Your task to perform on an android device: delete location history Image 0: 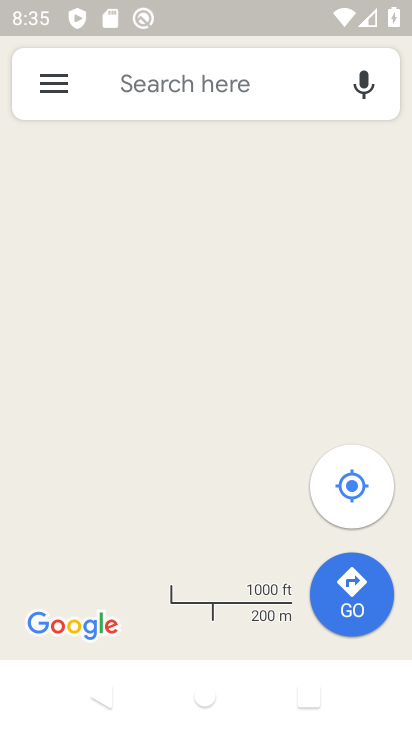
Step 0: press home button
Your task to perform on an android device: delete location history Image 1: 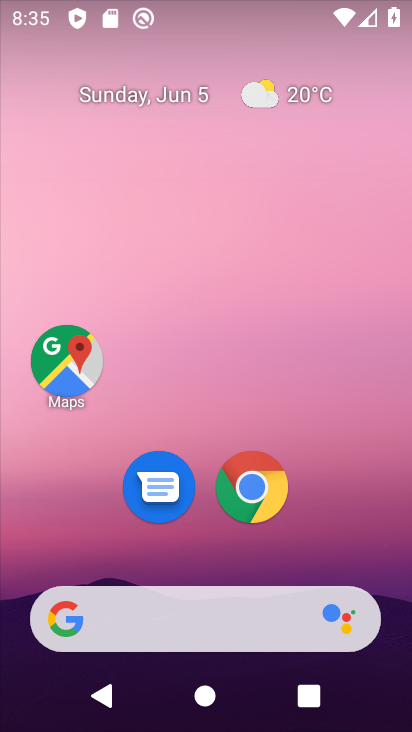
Step 1: drag from (274, 586) to (260, 363)
Your task to perform on an android device: delete location history Image 2: 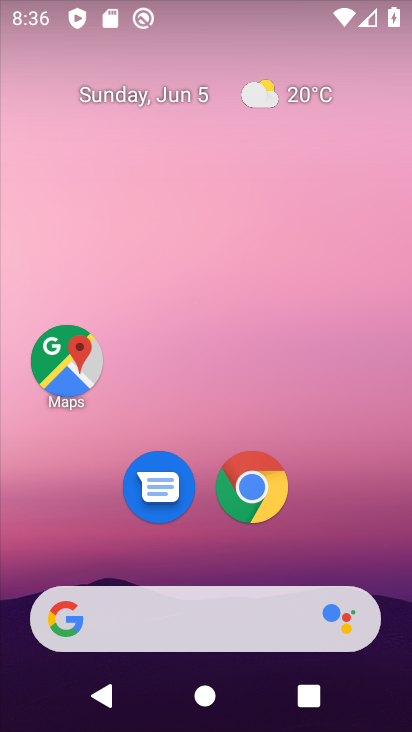
Step 2: drag from (191, 628) to (114, 182)
Your task to perform on an android device: delete location history Image 3: 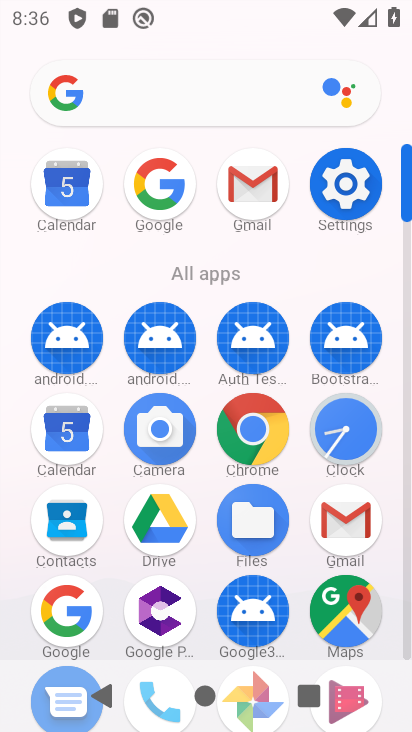
Step 3: click (339, 203)
Your task to perform on an android device: delete location history Image 4: 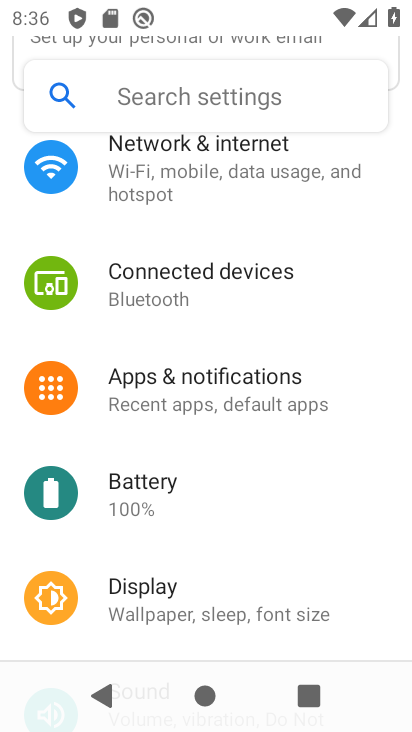
Step 4: drag from (183, 526) to (141, 123)
Your task to perform on an android device: delete location history Image 5: 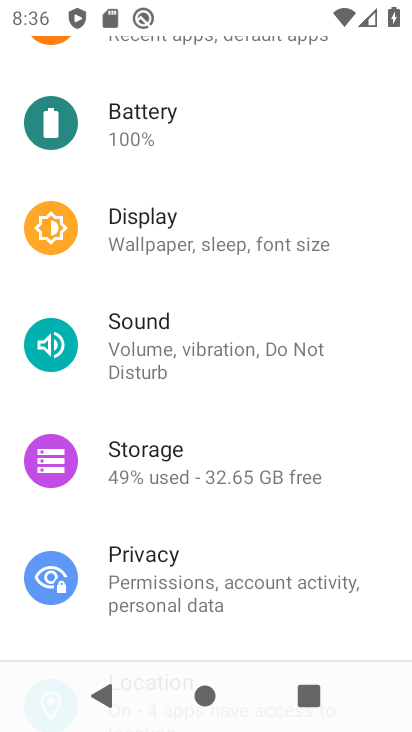
Step 5: drag from (224, 509) to (193, 127)
Your task to perform on an android device: delete location history Image 6: 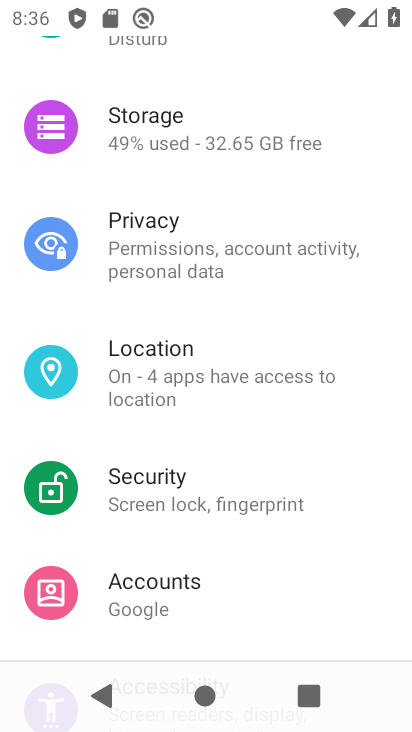
Step 6: click (157, 360)
Your task to perform on an android device: delete location history Image 7: 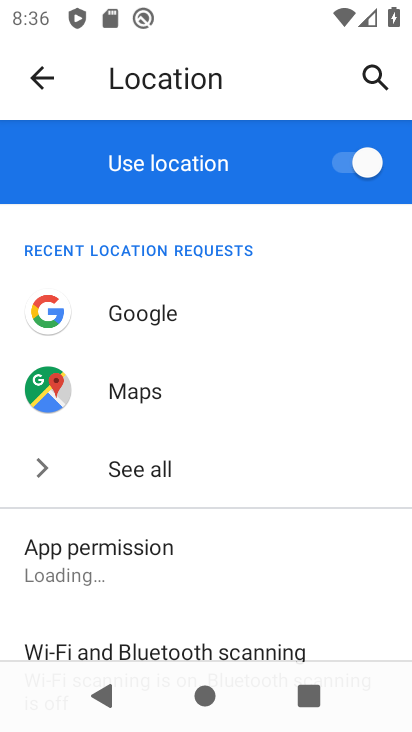
Step 7: drag from (198, 564) to (276, 188)
Your task to perform on an android device: delete location history Image 8: 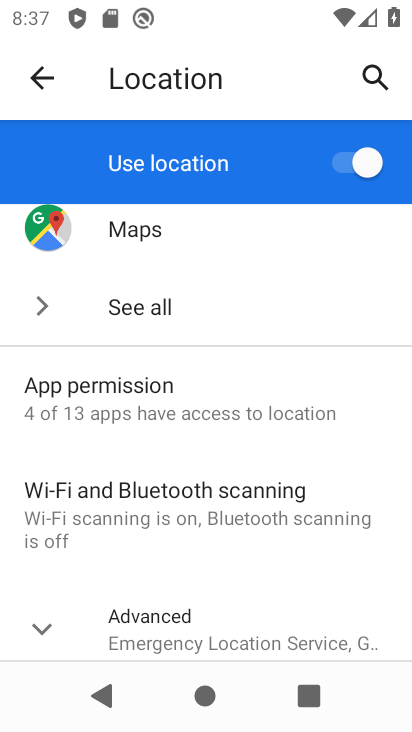
Step 8: click (121, 610)
Your task to perform on an android device: delete location history Image 9: 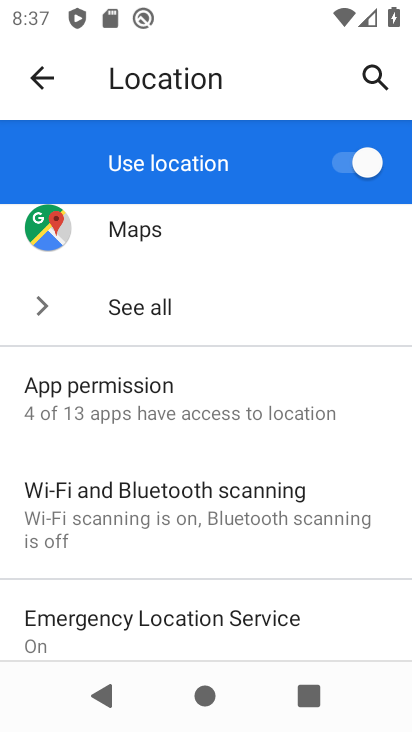
Step 9: drag from (218, 541) to (235, 317)
Your task to perform on an android device: delete location history Image 10: 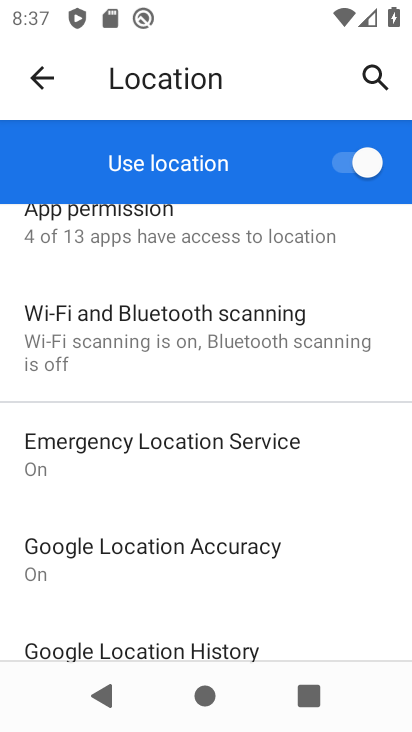
Step 10: click (185, 632)
Your task to perform on an android device: delete location history Image 11: 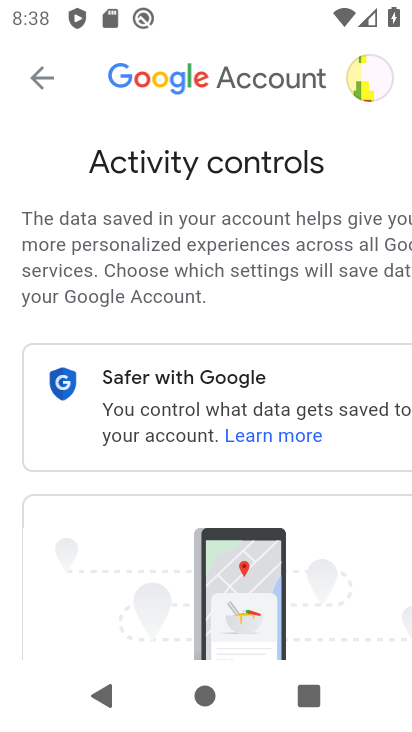
Step 11: drag from (199, 464) to (161, 288)
Your task to perform on an android device: delete location history Image 12: 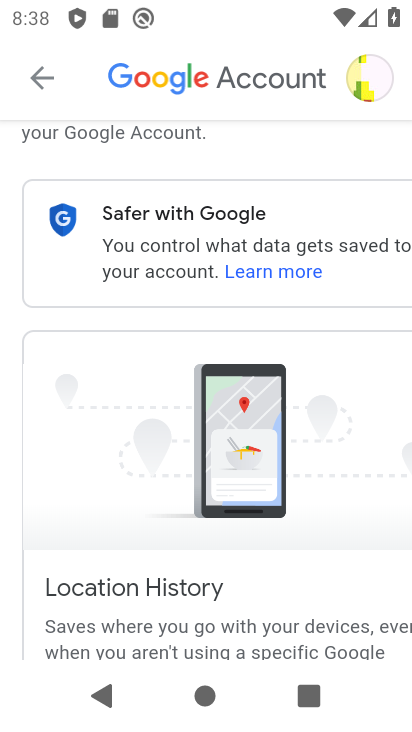
Step 12: drag from (189, 480) to (86, 287)
Your task to perform on an android device: delete location history Image 13: 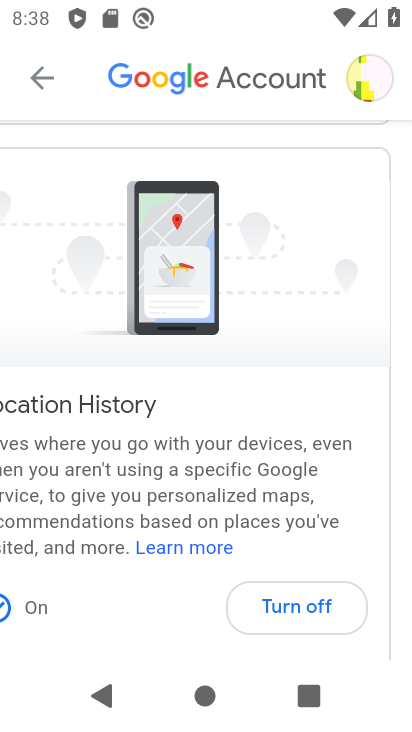
Step 13: drag from (161, 535) to (153, 452)
Your task to perform on an android device: delete location history Image 14: 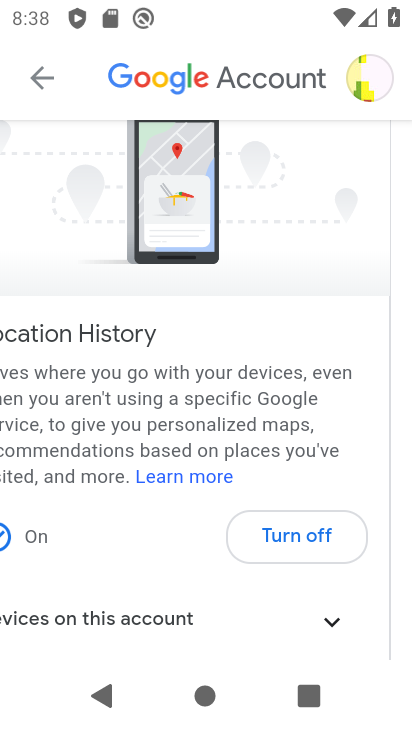
Step 14: drag from (187, 514) to (240, 426)
Your task to perform on an android device: delete location history Image 15: 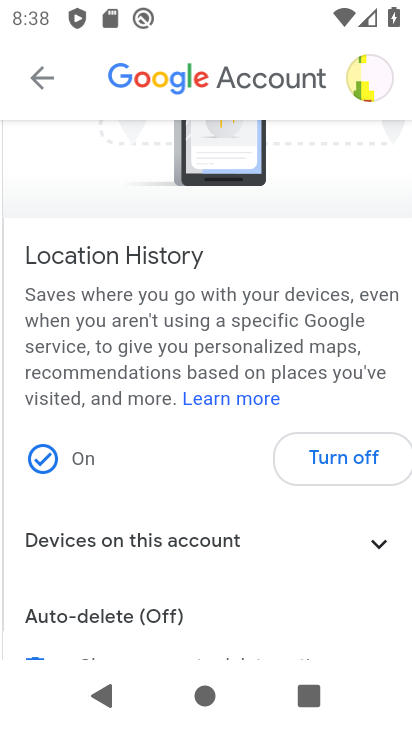
Step 15: click (219, 521)
Your task to perform on an android device: delete location history Image 16: 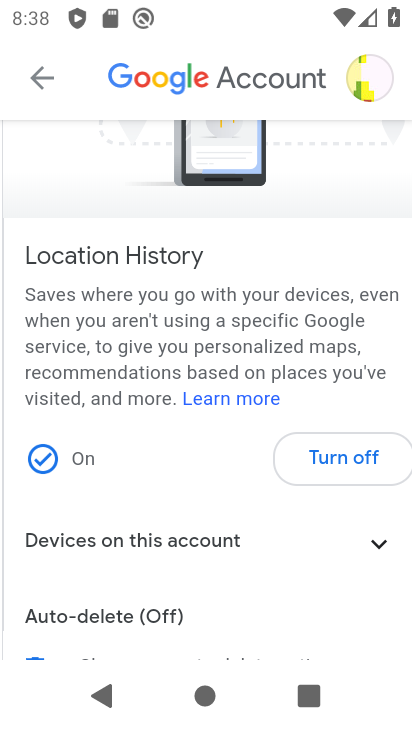
Step 16: drag from (193, 603) to (205, 273)
Your task to perform on an android device: delete location history Image 17: 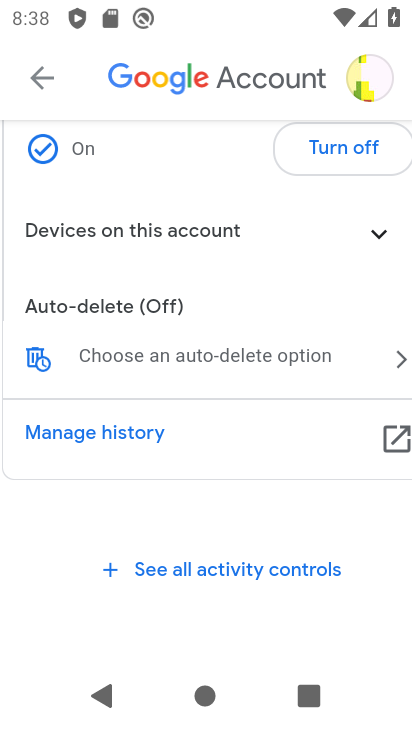
Step 17: click (244, 349)
Your task to perform on an android device: delete location history Image 18: 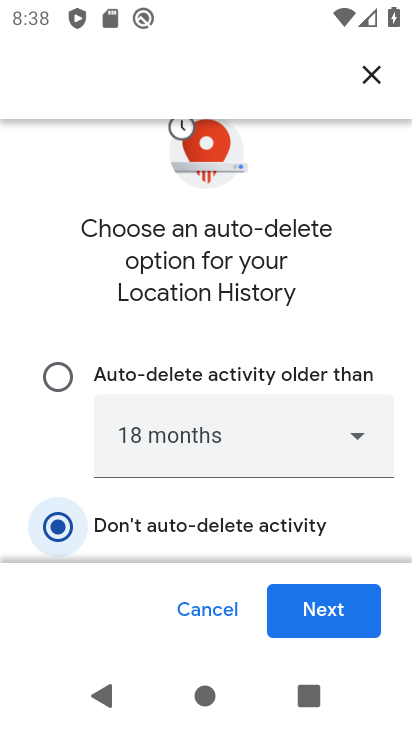
Step 18: click (342, 616)
Your task to perform on an android device: delete location history Image 19: 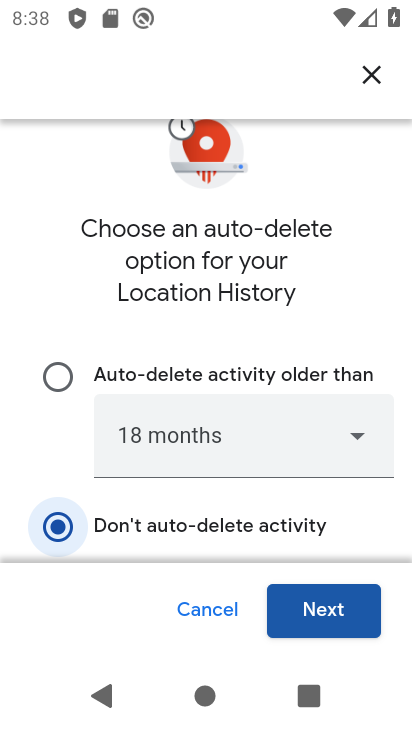
Step 19: click (360, 615)
Your task to perform on an android device: delete location history Image 20: 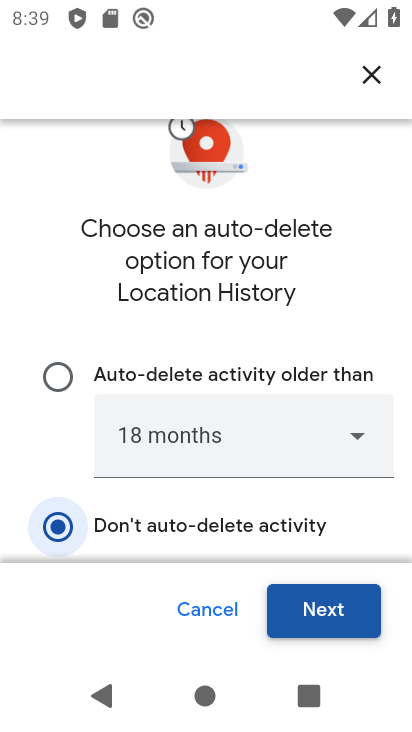
Step 20: click (352, 615)
Your task to perform on an android device: delete location history Image 21: 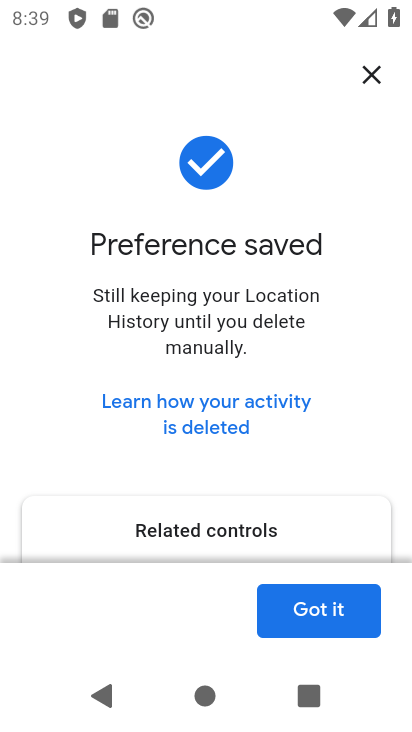
Step 21: click (339, 609)
Your task to perform on an android device: delete location history Image 22: 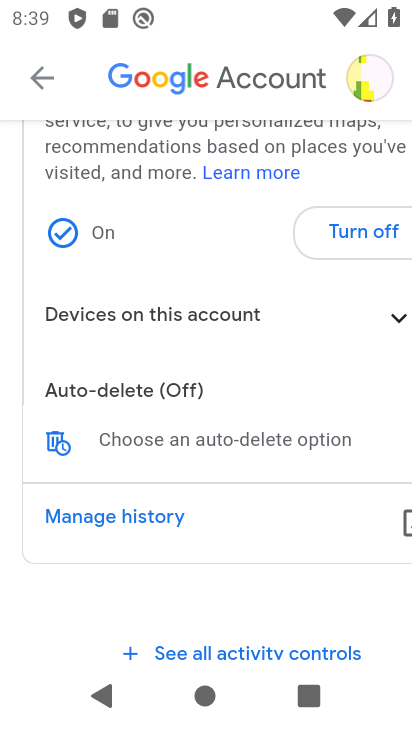
Step 22: task complete